Your task to perform on an android device: find which apps use the phone's location Image 0: 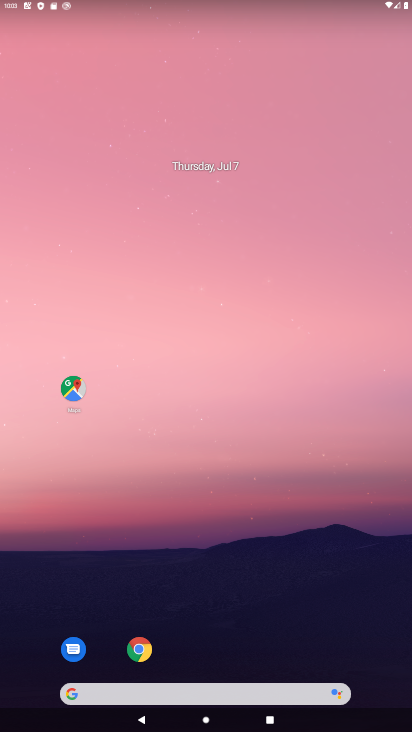
Step 0: drag from (251, 601) to (246, 169)
Your task to perform on an android device: find which apps use the phone's location Image 1: 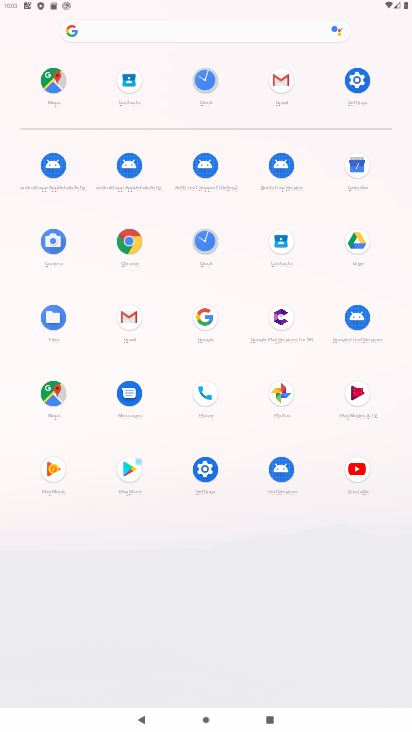
Step 1: click (362, 83)
Your task to perform on an android device: find which apps use the phone's location Image 2: 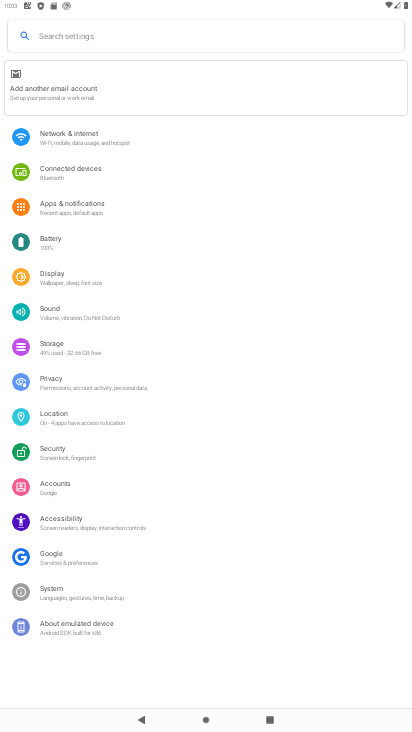
Step 2: click (93, 206)
Your task to perform on an android device: find which apps use the phone's location Image 3: 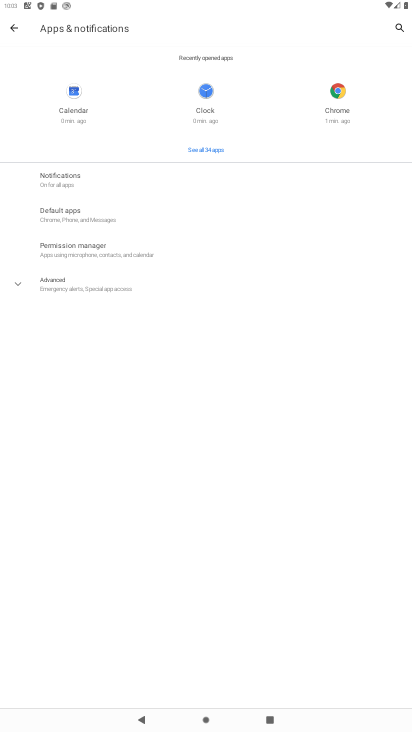
Step 3: click (15, 28)
Your task to perform on an android device: find which apps use the phone's location Image 4: 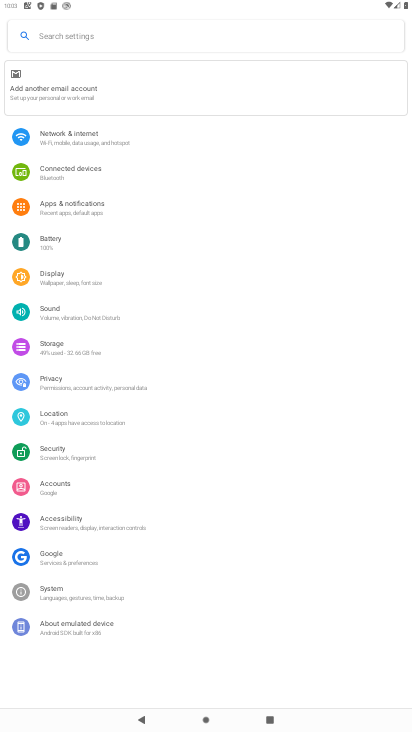
Step 4: click (66, 378)
Your task to perform on an android device: find which apps use the phone's location Image 5: 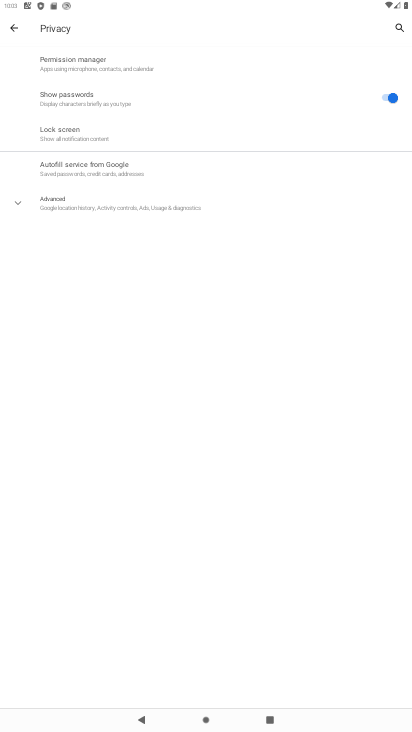
Step 5: click (12, 30)
Your task to perform on an android device: find which apps use the phone's location Image 6: 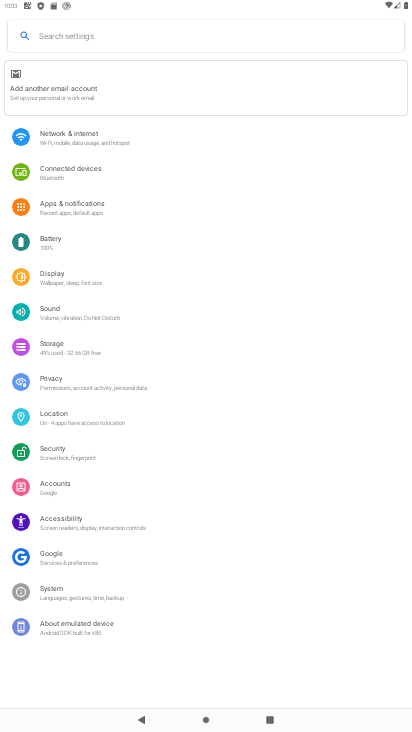
Step 6: click (58, 414)
Your task to perform on an android device: find which apps use the phone's location Image 7: 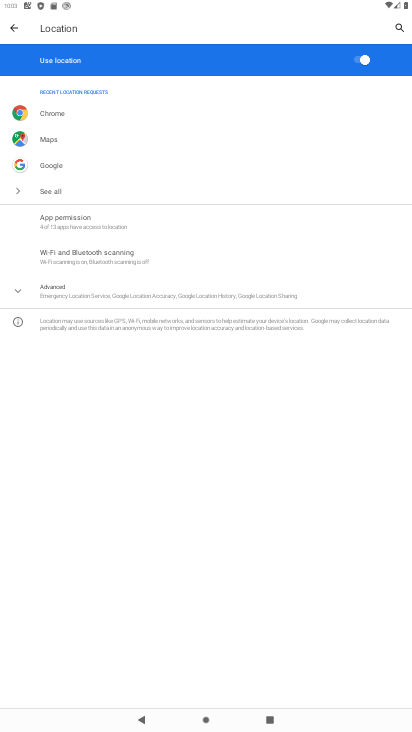
Step 7: task complete